Your task to perform on an android device: Open privacy settings Image 0: 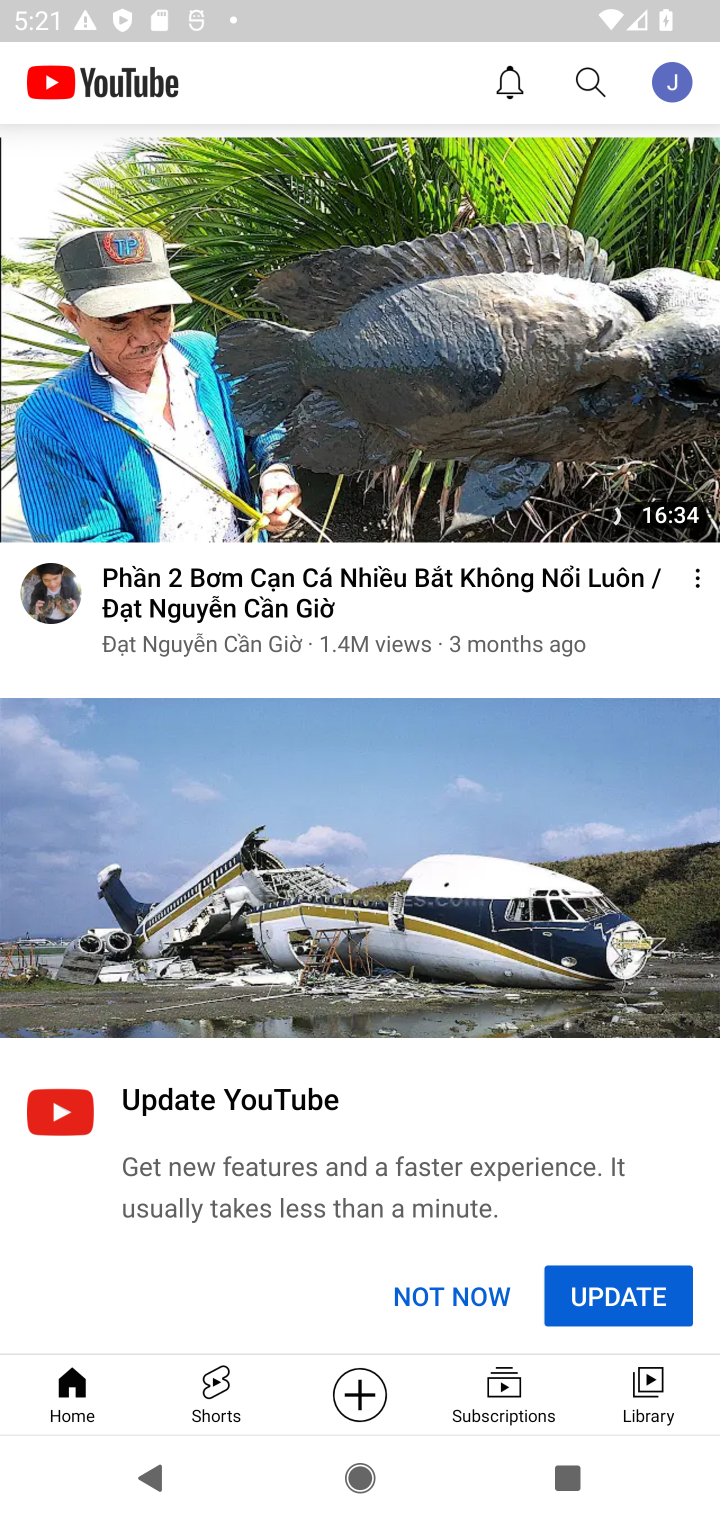
Step 0: press home button
Your task to perform on an android device: Open privacy settings Image 1: 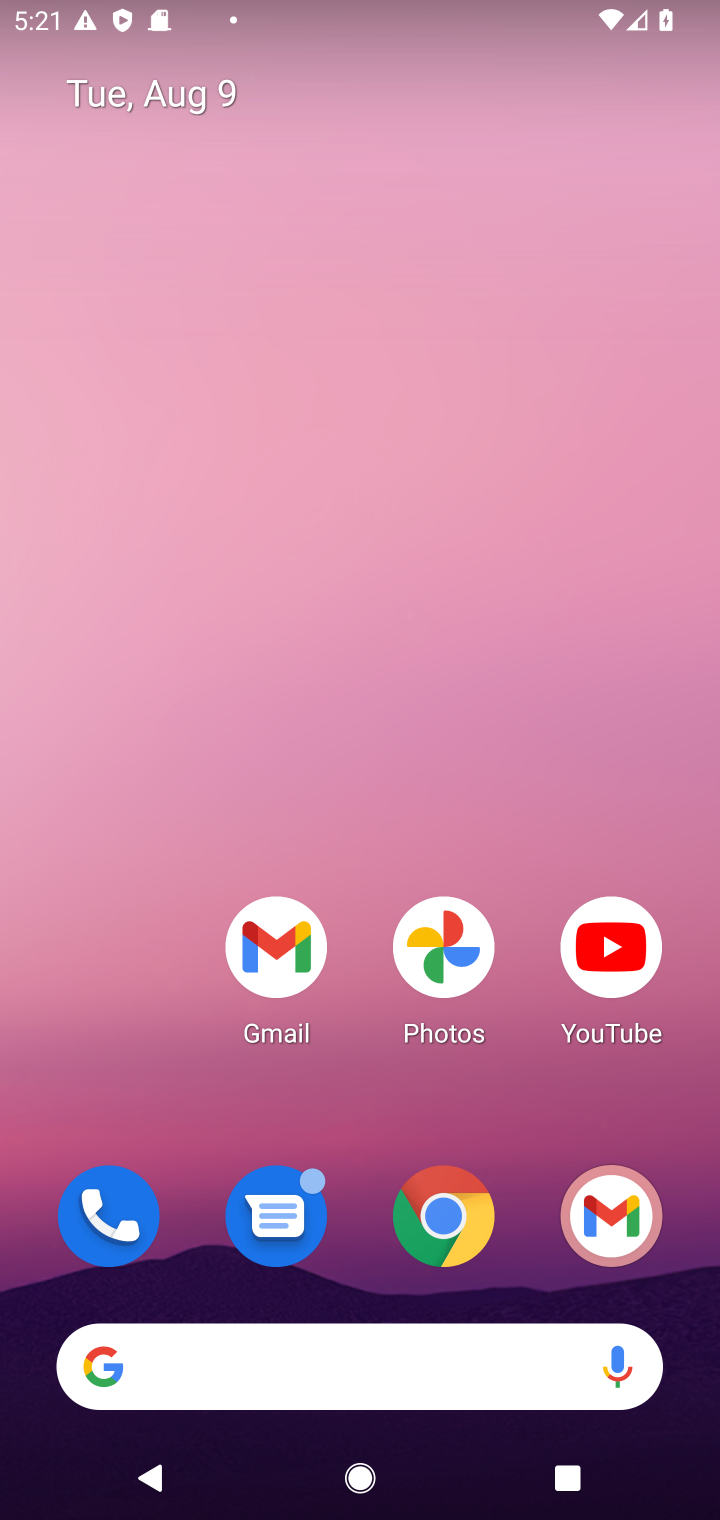
Step 1: drag from (380, 1321) to (411, 584)
Your task to perform on an android device: Open privacy settings Image 2: 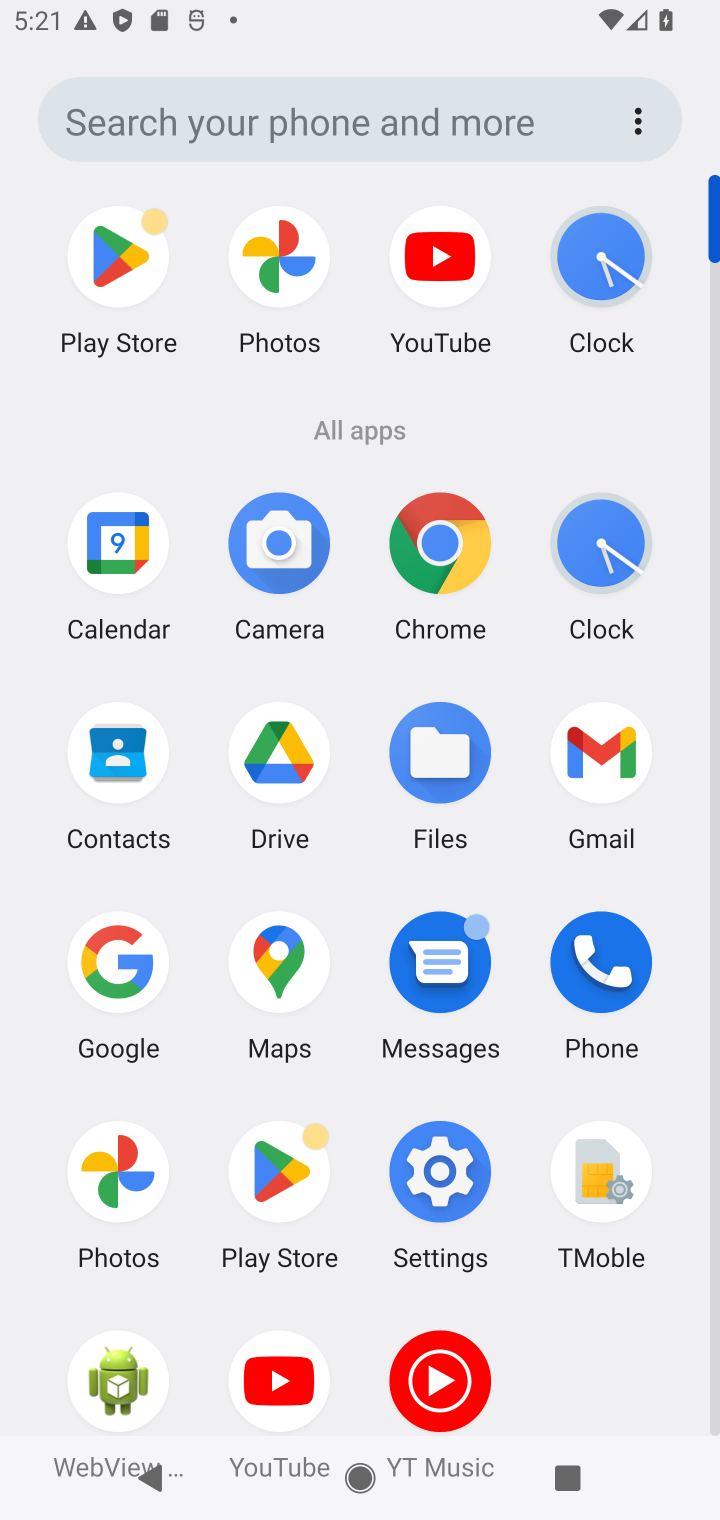
Step 2: click (455, 1178)
Your task to perform on an android device: Open privacy settings Image 3: 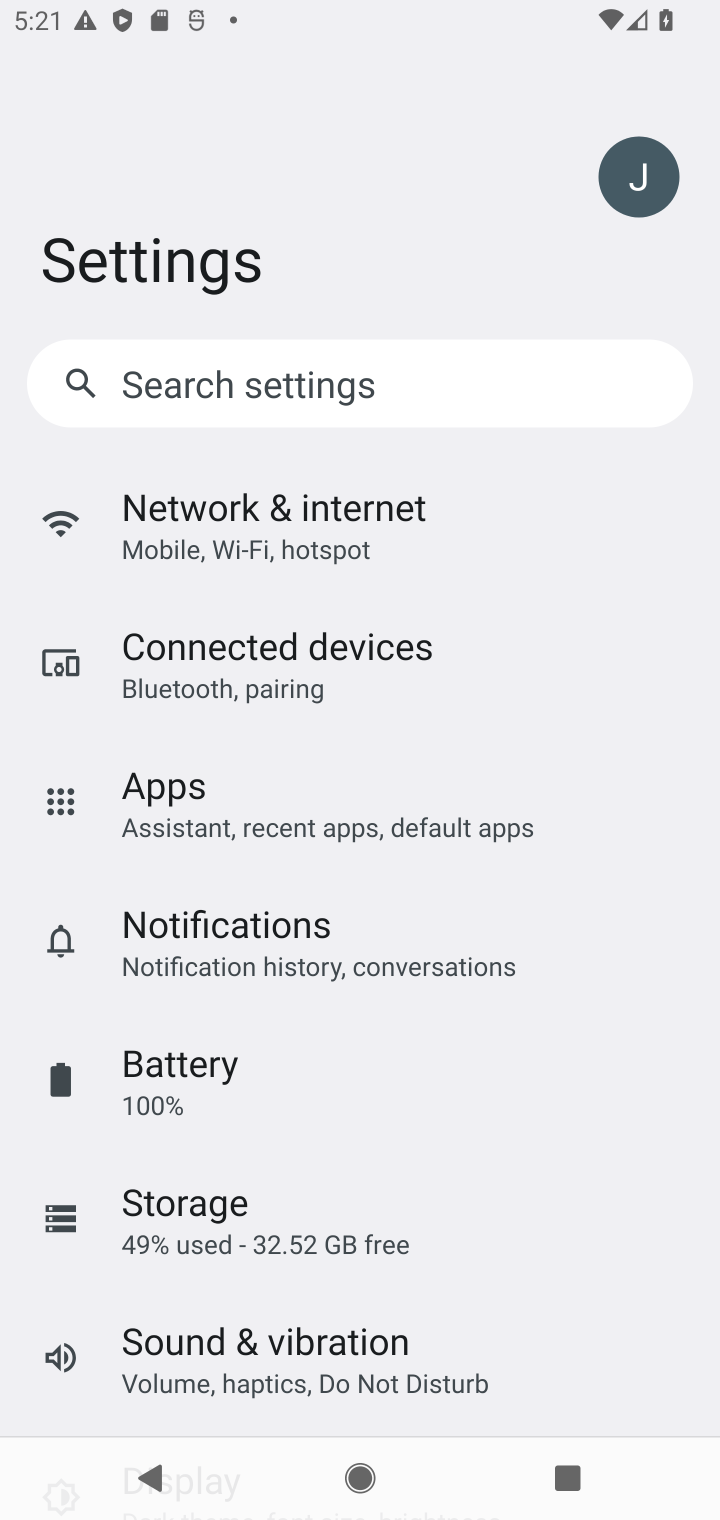
Step 3: drag from (198, 1368) to (279, 453)
Your task to perform on an android device: Open privacy settings Image 4: 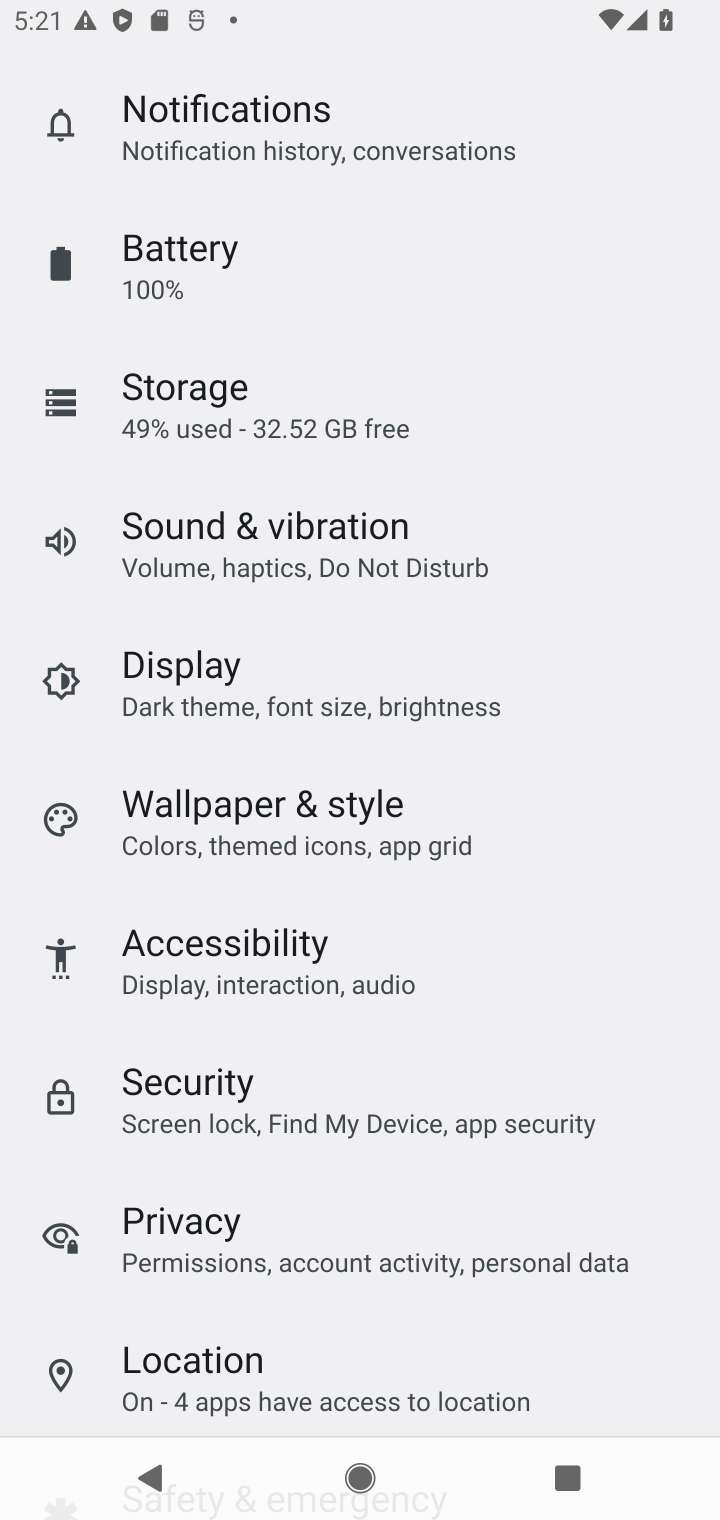
Step 4: click (167, 1255)
Your task to perform on an android device: Open privacy settings Image 5: 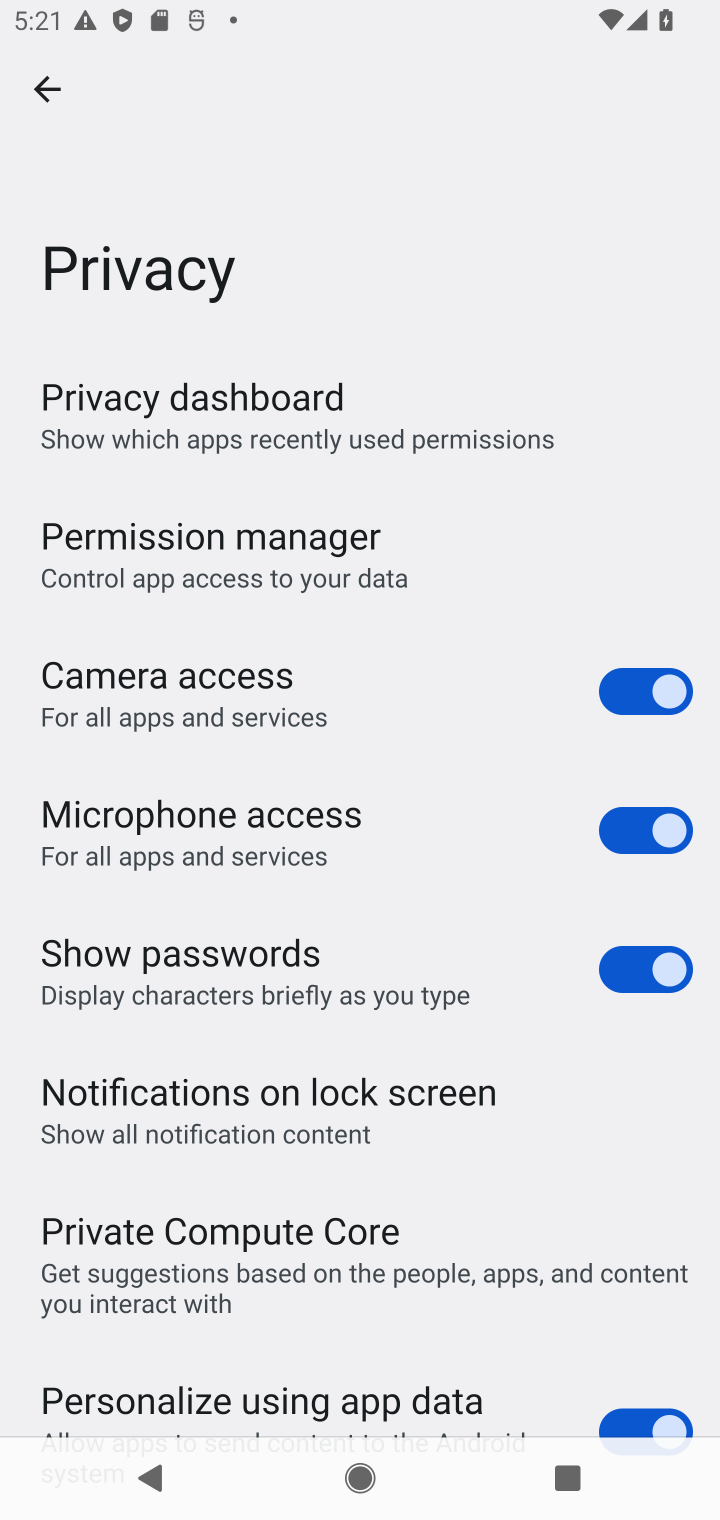
Step 5: task complete